Your task to perform on an android device: add a label to a message in the gmail app Image 0: 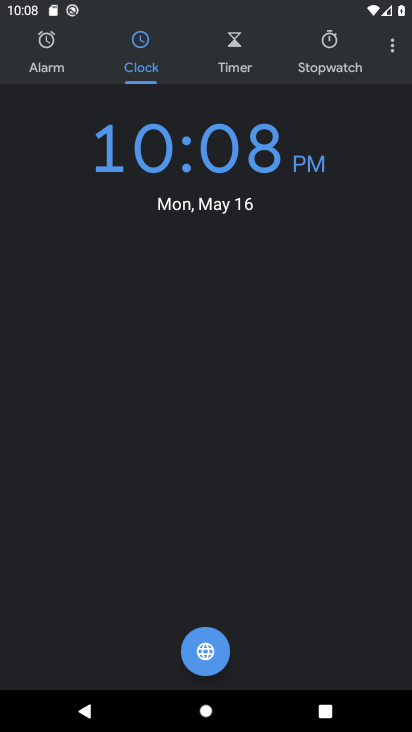
Step 0: press home button
Your task to perform on an android device: add a label to a message in the gmail app Image 1: 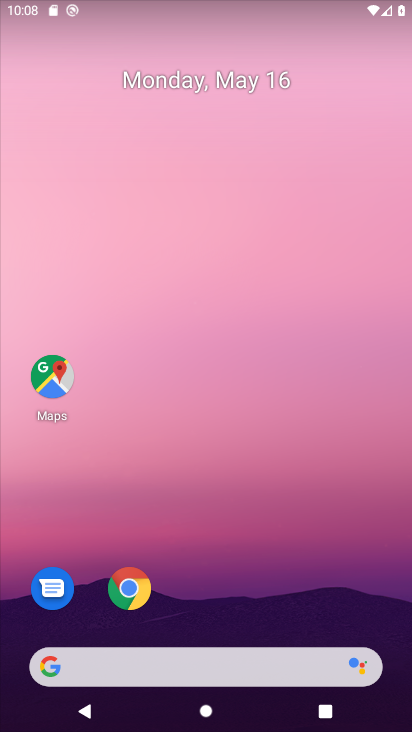
Step 1: drag from (207, 623) to (229, 29)
Your task to perform on an android device: add a label to a message in the gmail app Image 2: 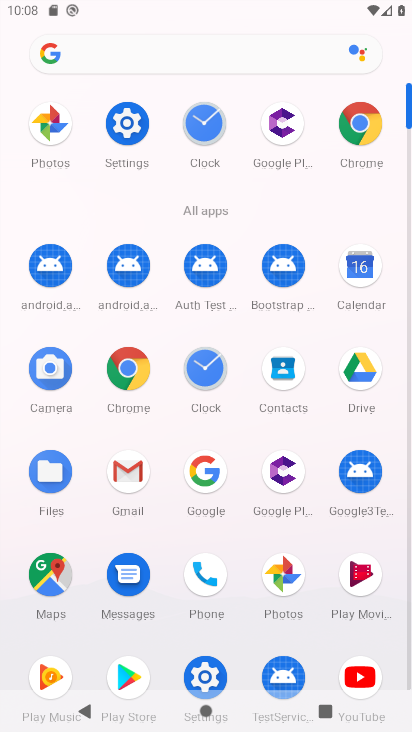
Step 2: click (131, 463)
Your task to perform on an android device: add a label to a message in the gmail app Image 3: 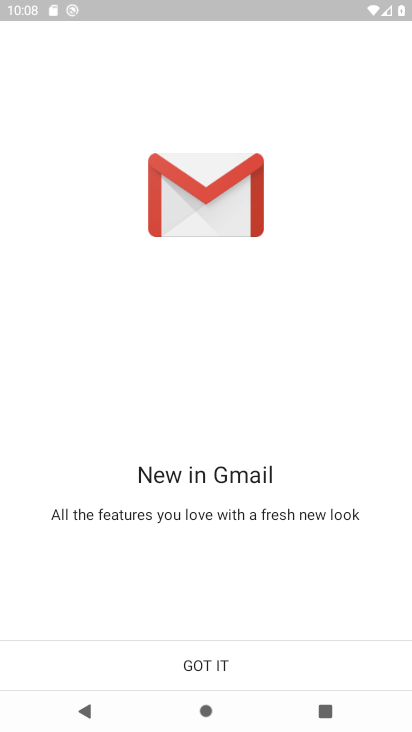
Step 3: click (207, 662)
Your task to perform on an android device: add a label to a message in the gmail app Image 4: 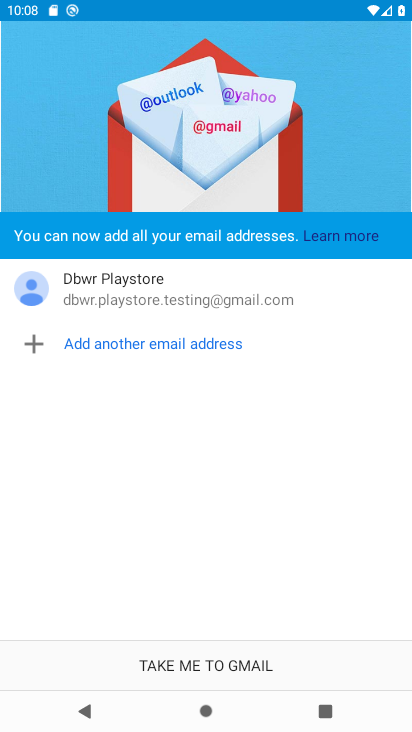
Step 4: click (207, 662)
Your task to perform on an android device: add a label to a message in the gmail app Image 5: 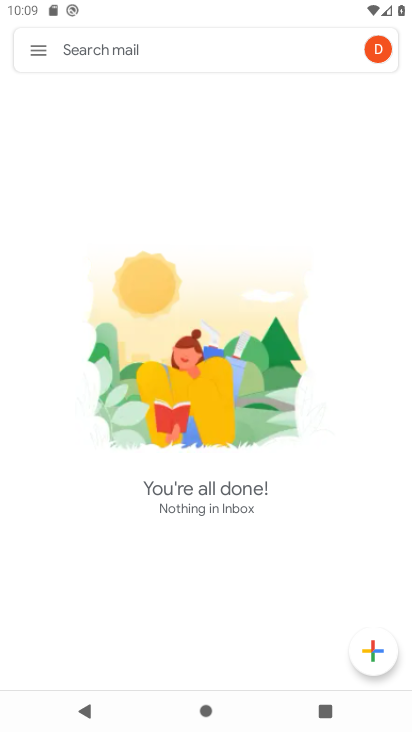
Step 5: click (37, 45)
Your task to perform on an android device: add a label to a message in the gmail app Image 6: 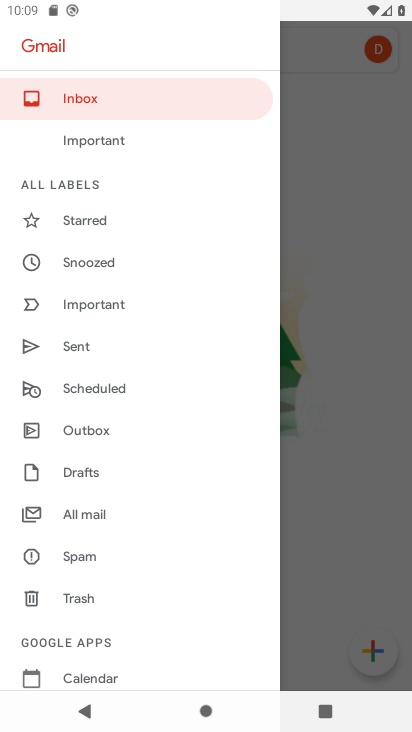
Step 6: click (90, 515)
Your task to perform on an android device: add a label to a message in the gmail app Image 7: 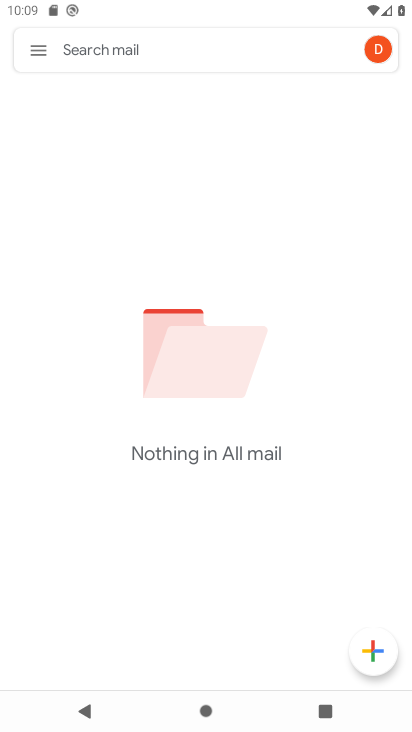
Step 7: task complete